Your task to perform on an android device: Go to network settings Image 0: 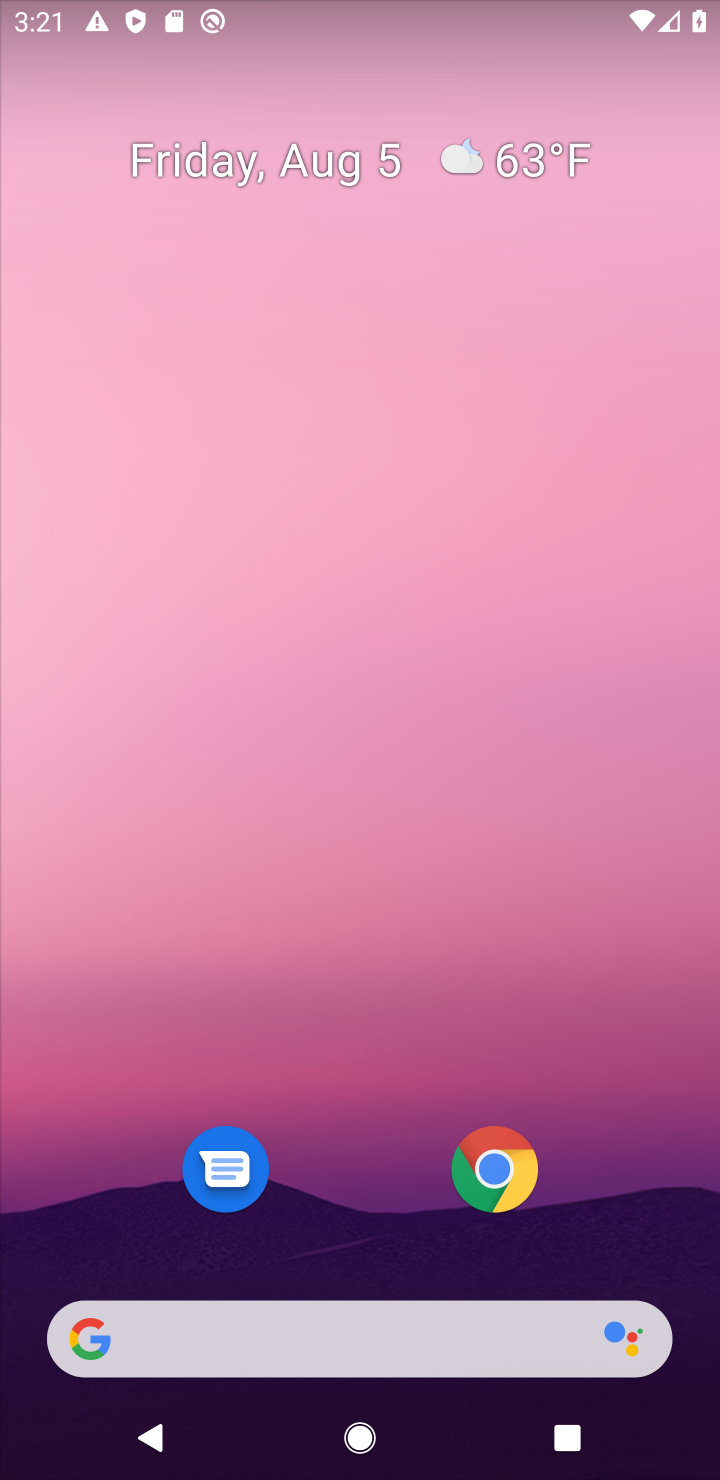
Step 0: drag from (694, 1401) to (439, 191)
Your task to perform on an android device: Go to network settings Image 1: 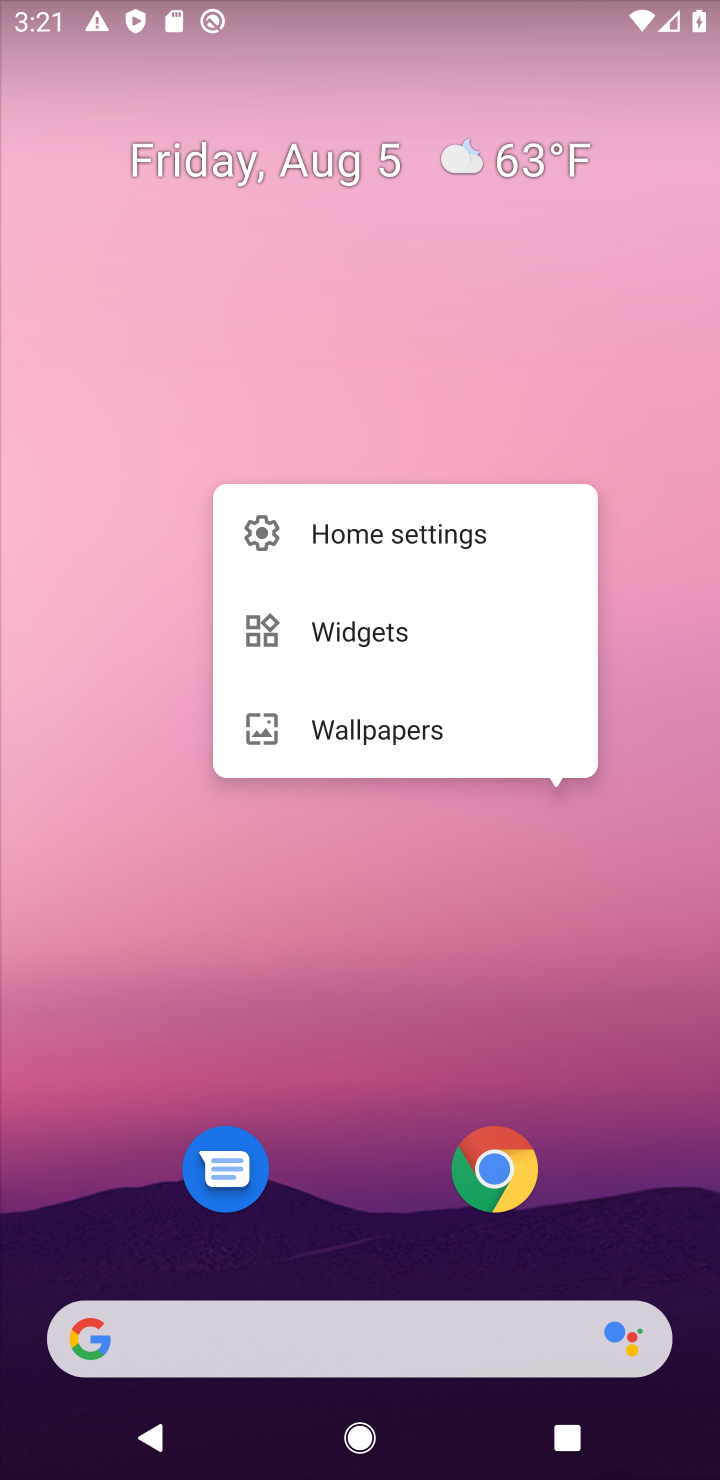
Step 1: press back button
Your task to perform on an android device: Go to network settings Image 2: 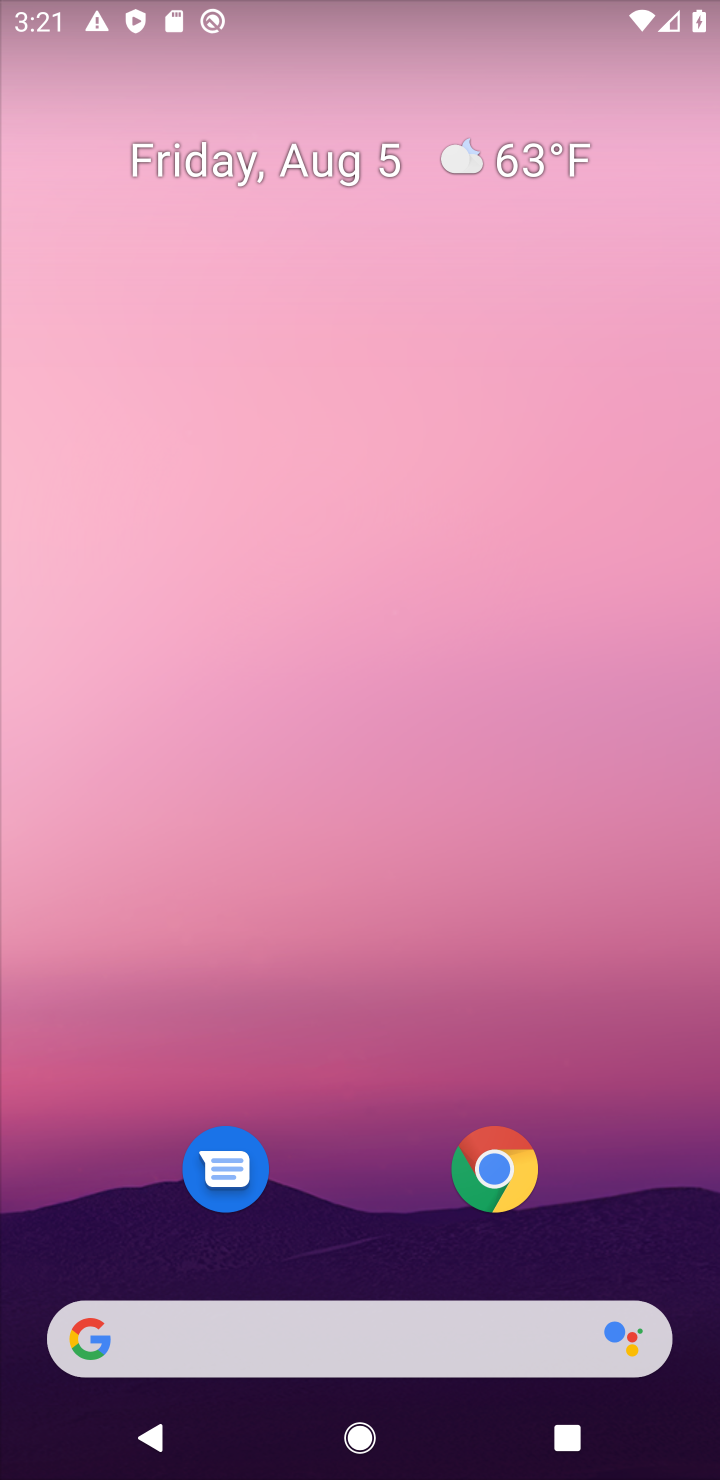
Step 2: drag from (688, 1231) to (458, 125)
Your task to perform on an android device: Go to network settings Image 3: 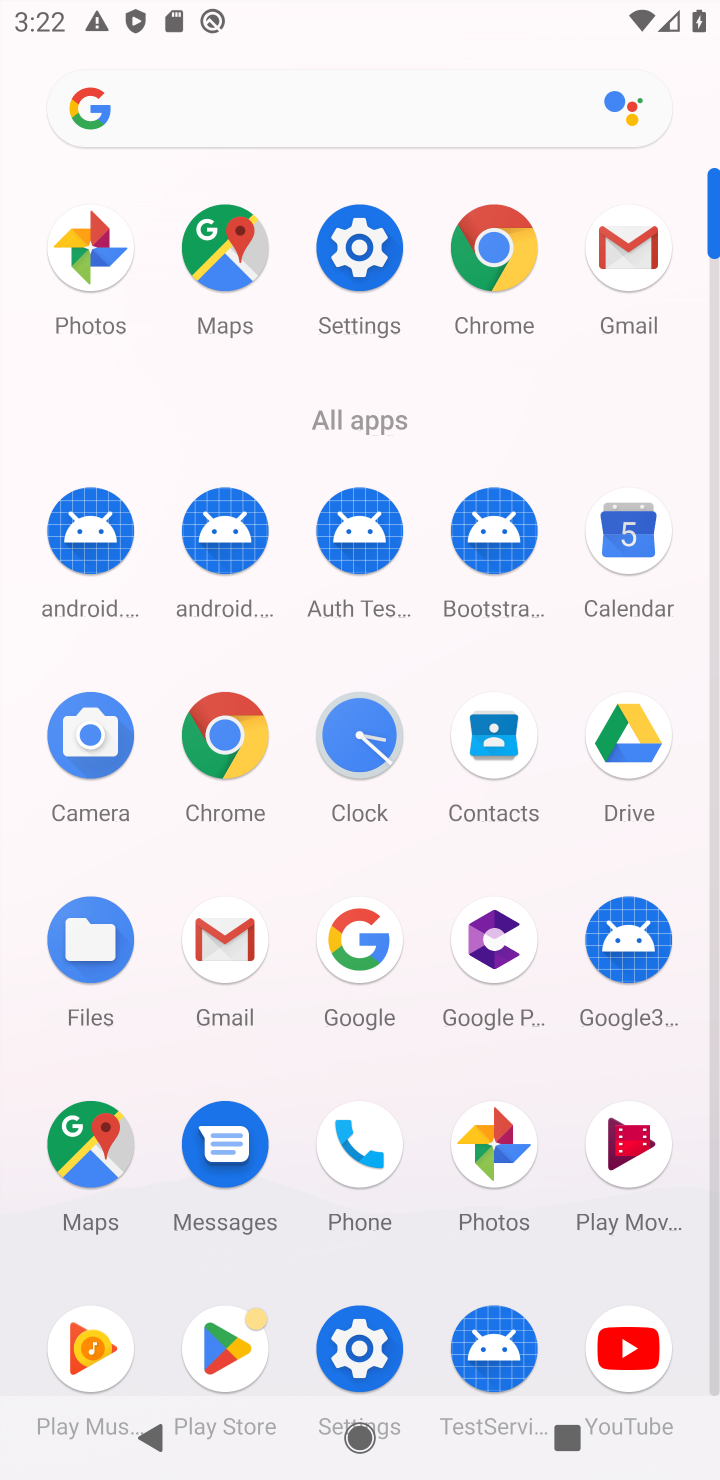
Step 3: click (356, 239)
Your task to perform on an android device: Go to network settings Image 4: 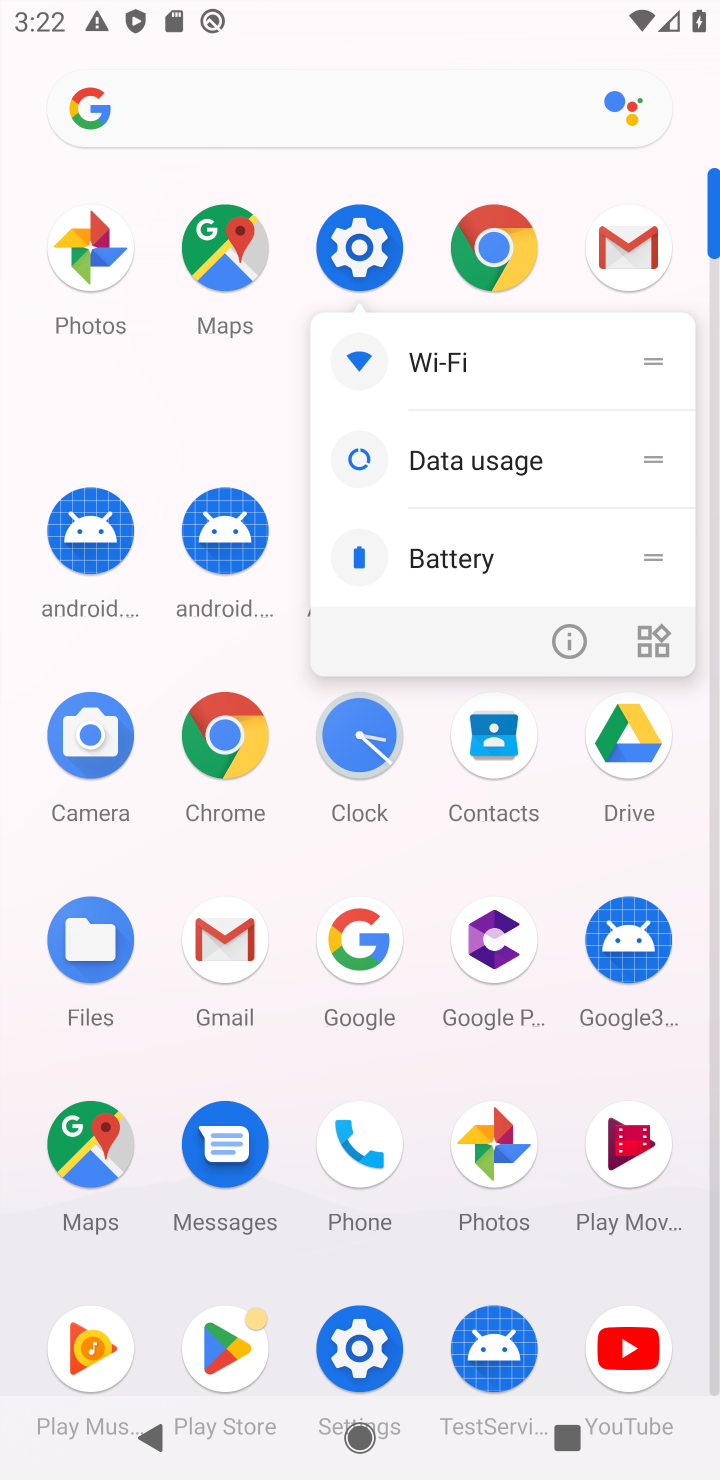
Step 4: click (350, 259)
Your task to perform on an android device: Go to network settings Image 5: 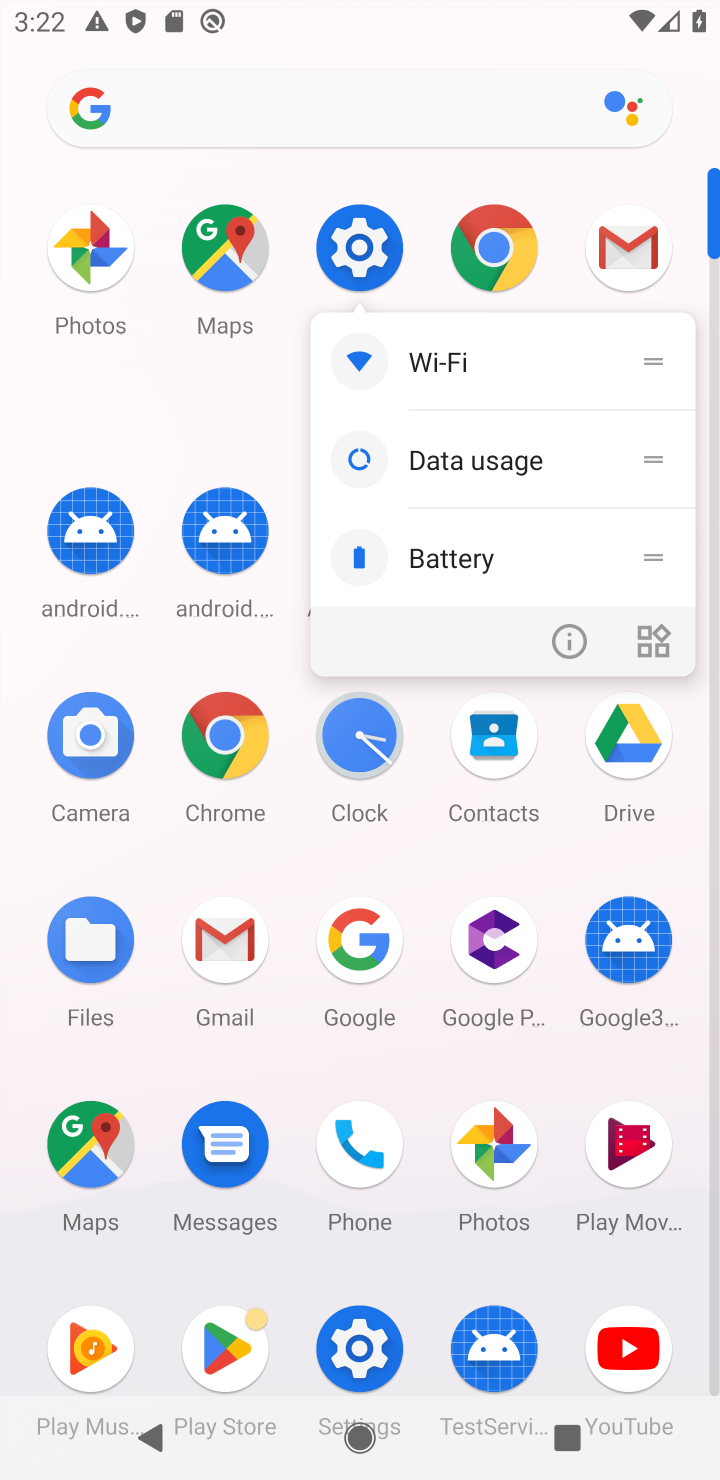
Step 5: click (334, 270)
Your task to perform on an android device: Go to network settings Image 6: 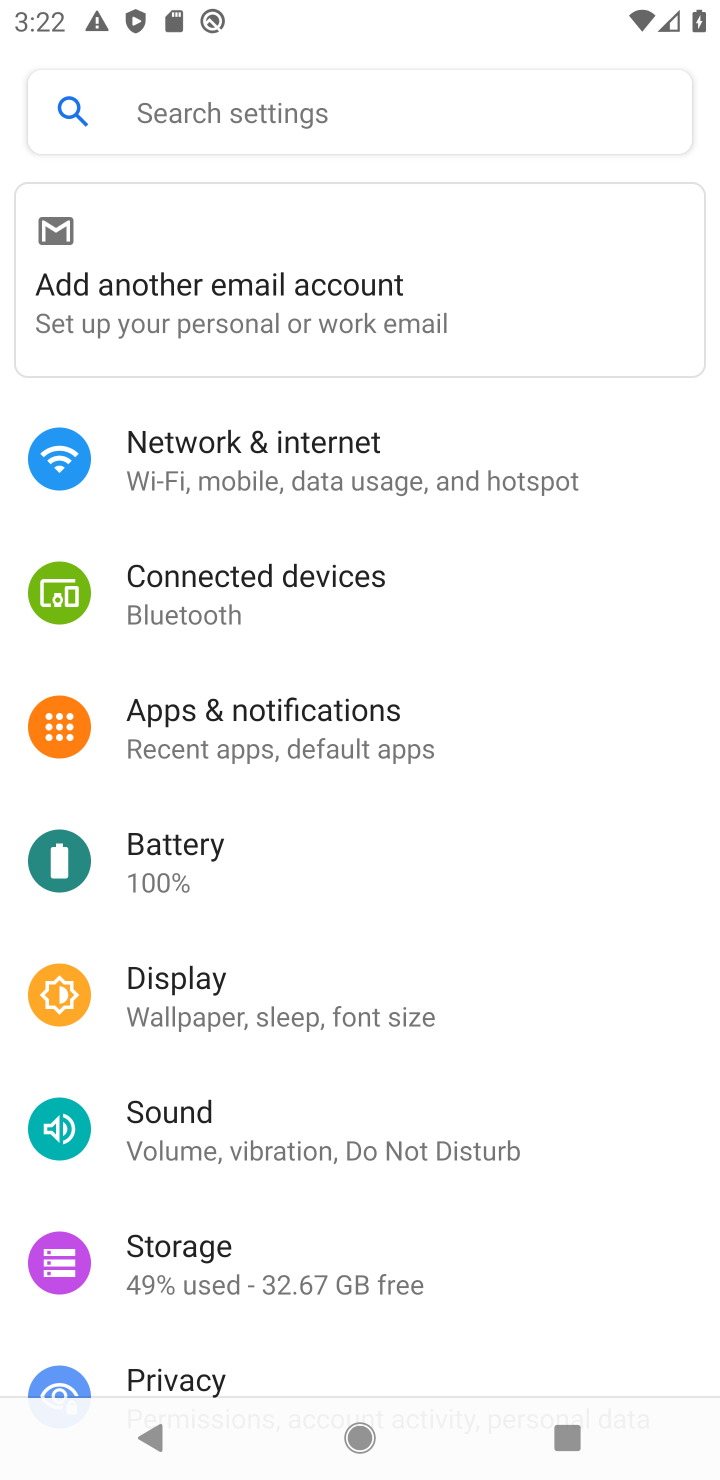
Step 6: click (216, 441)
Your task to perform on an android device: Go to network settings Image 7: 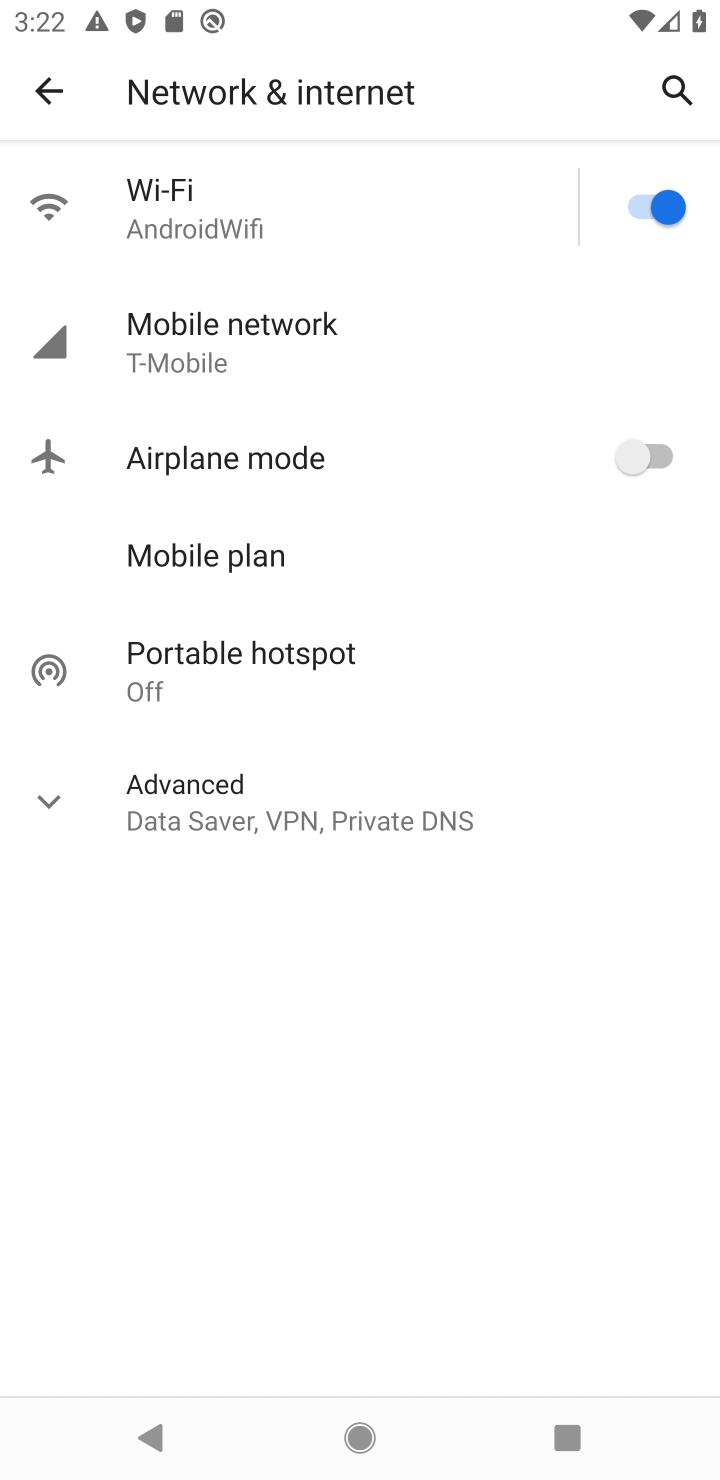
Step 7: click (41, 780)
Your task to perform on an android device: Go to network settings Image 8: 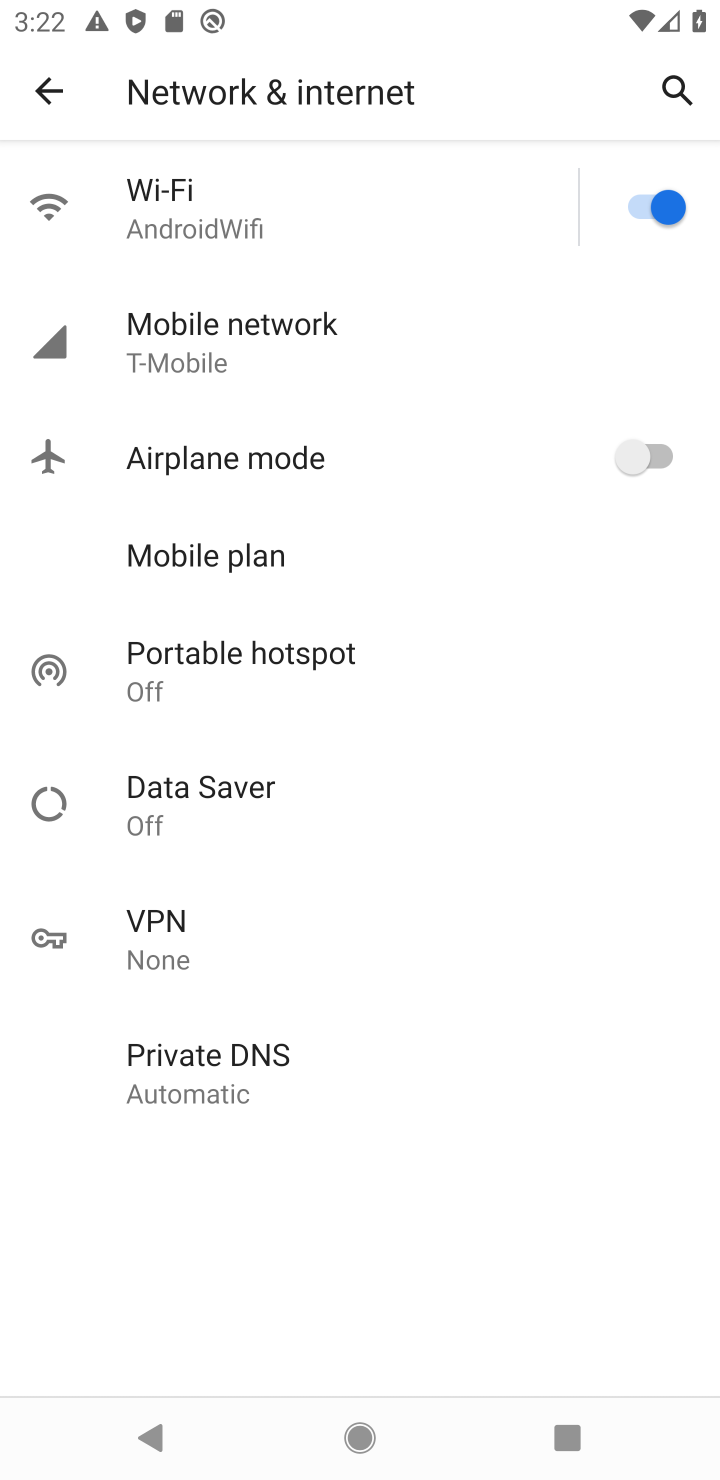
Step 8: task complete